Your task to perform on an android device: find which apps use the phone's location Image 0: 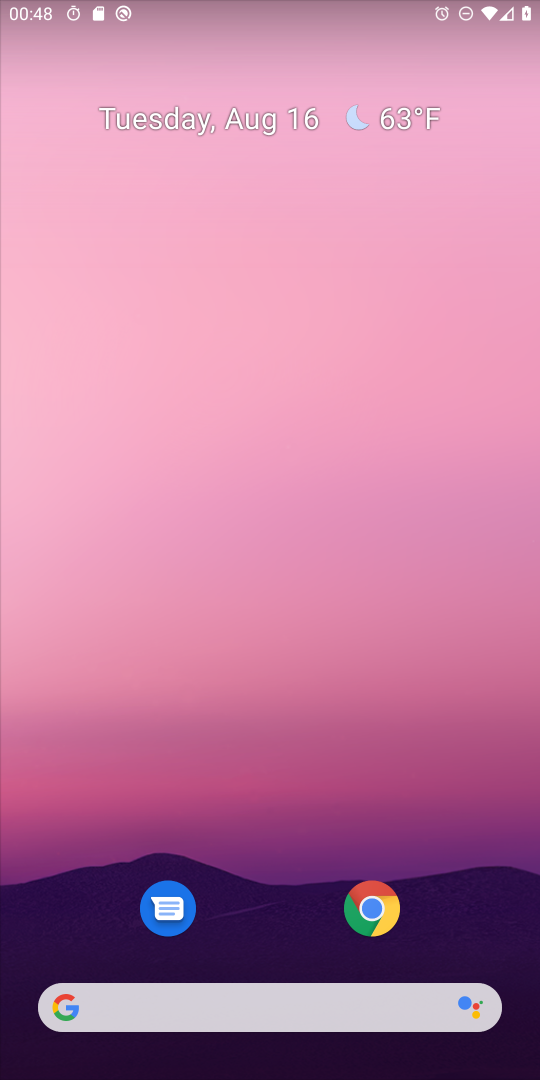
Step 0: drag from (253, 916) to (228, 73)
Your task to perform on an android device: find which apps use the phone's location Image 1: 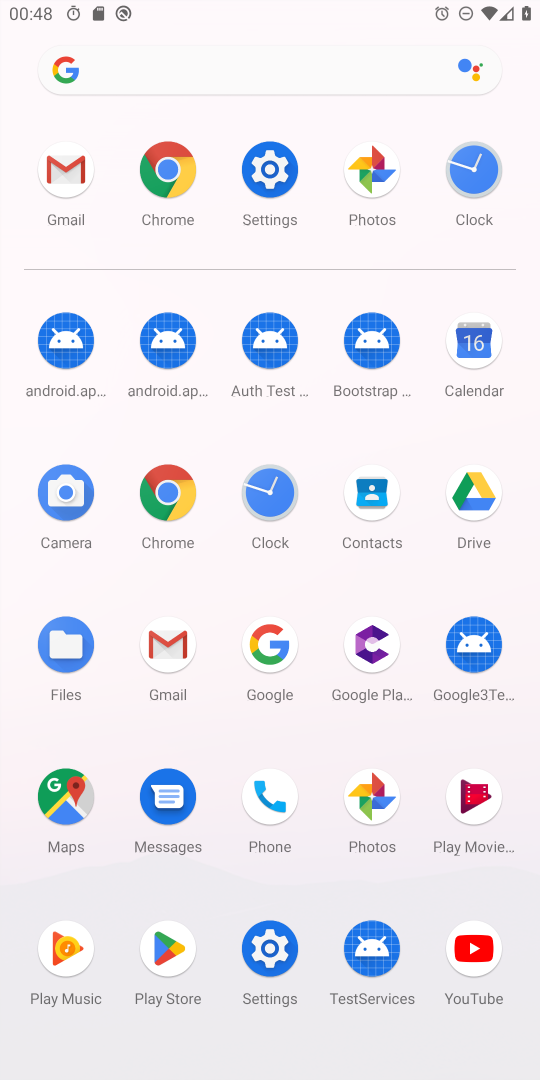
Step 1: click (291, 155)
Your task to perform on an android device: find which apps use the phone's location Image 2: 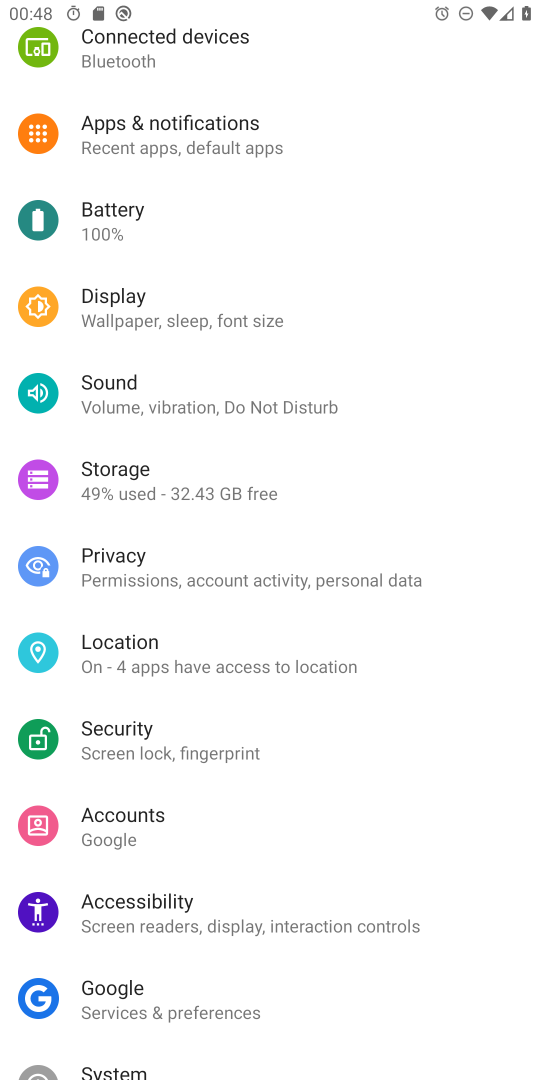
Step 2: click (155, 665)
Your task to perform on an android device: find which apps use the phone's location Image 3: 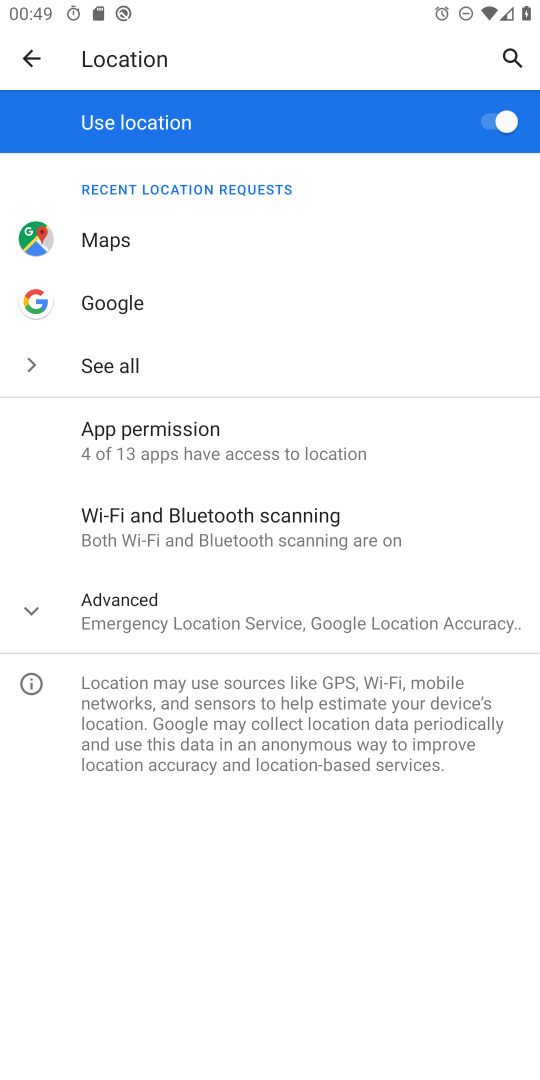
Step 3: click (141, 376)
Your task to perform on an android device: find which apps use the phone's location Image 4: 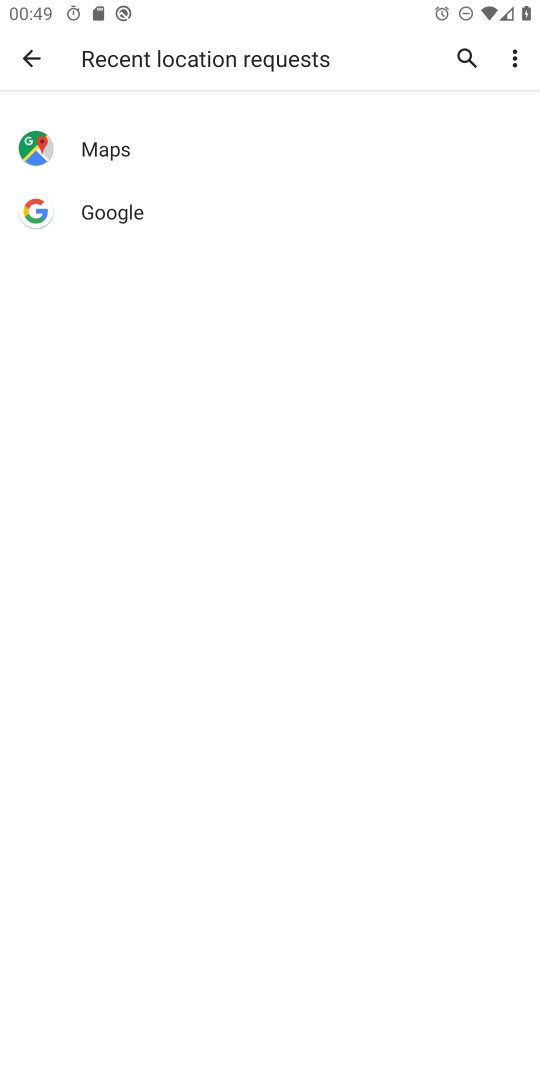
Step 4: task complete